Your task to perform on an android device: Search for vegetarian restaurants on Maps Image 0: 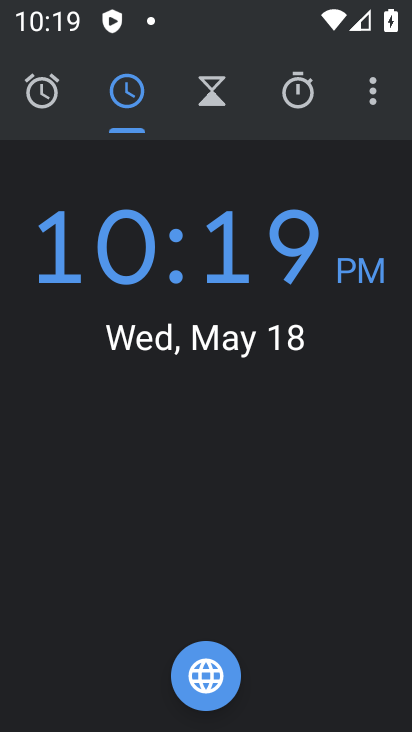
Step 0: press home button
Your task to perform on an android device: Search for vegetarian restaurants on Maps Image 1: 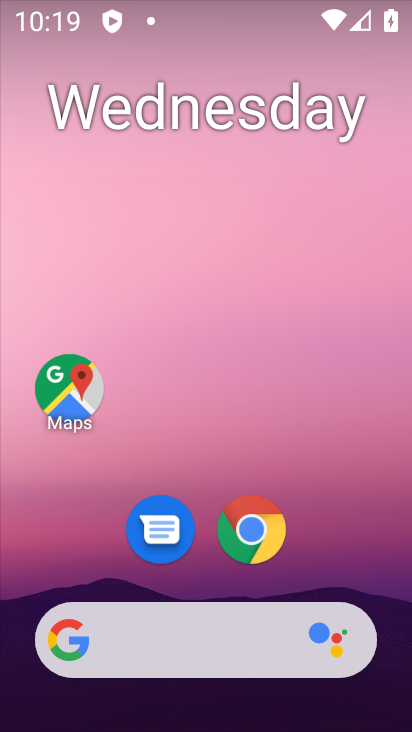
Step 1: click (72, 384)
Your task to perform on an android device: Search for vegetarian restaurants on Maps Image 2: 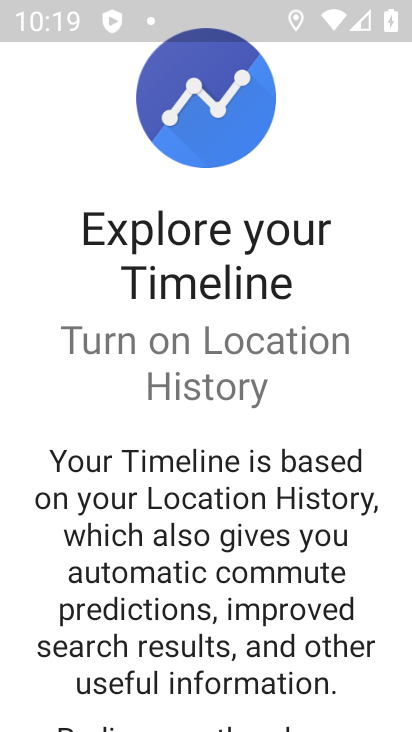
Step 2: drag from (243, 703) to (212, 436)
Your task to perform on an android device: Search for vegetarian restaurants on Maps Image 3: 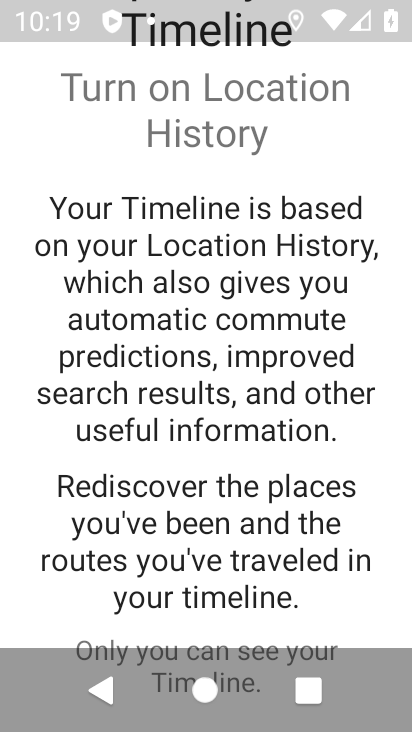
Step 3: press back button
Your task to perform on an android device: Search for vegetarian restaurants on Maps Image 4: 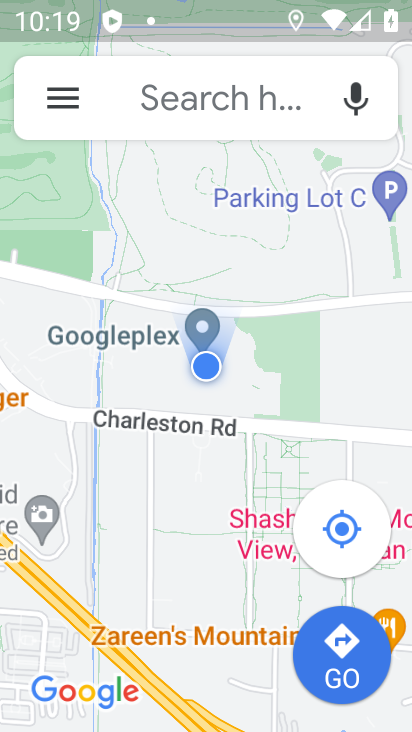
Step 4: click (179, 91)
Your task to perform on an android device: Search for vegetarian restaurants on Maps Image 5: 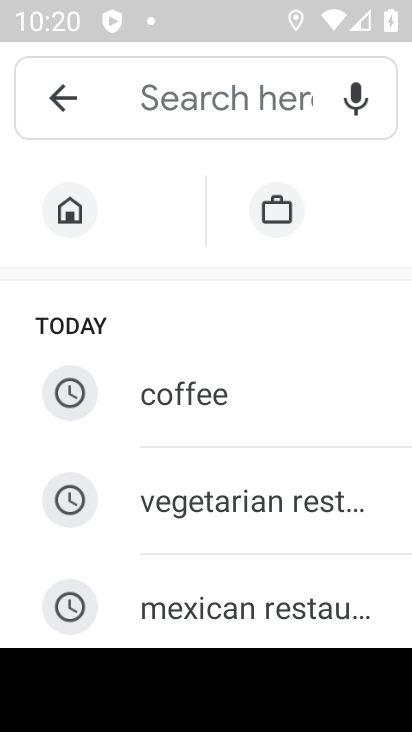
Step 5: type "vegetarian restaurants"
Your task to perform on an android device: Search for vegetarian restaurants on Maps Image 6: 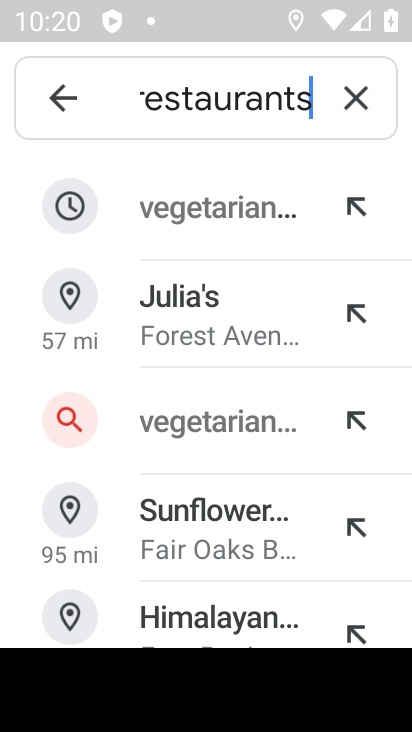
Step 6: click (169, 217)
Your task to perform on an android device: Search for vegetarian restaurants on Maps Image 7: 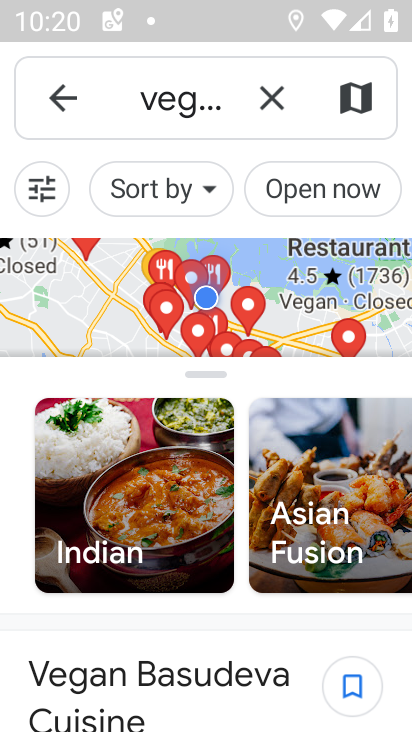
Step 7: task complete